Your task to perform on an android device: Is it going to rain tomorrow? Image 0: 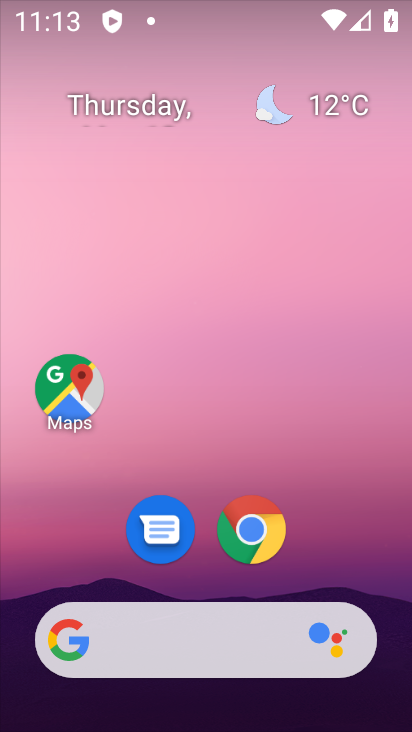
Step 0: click (238, 520)
Your task to perform on an android device: Is it going to rain tomorrow? Image 1: 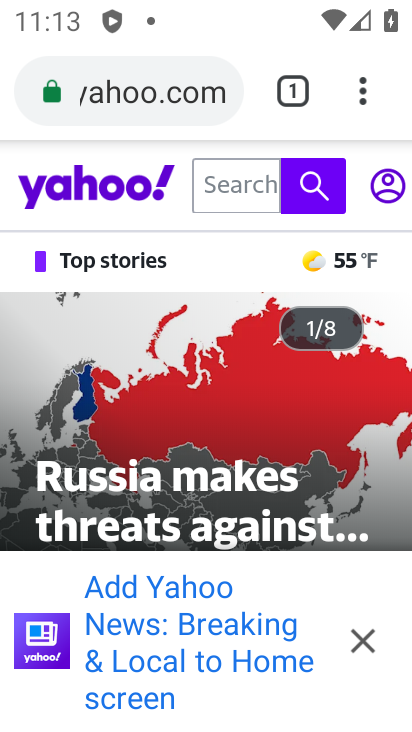
Step 1: click (338, 89)
Your task to perform on an android device: Is it going to rain tomorrow? Image 2: 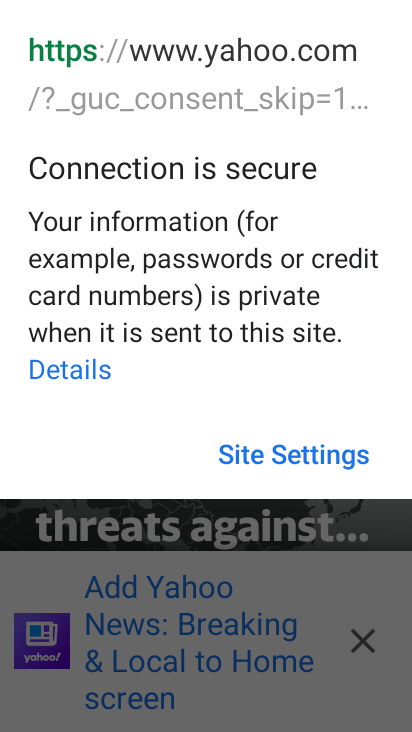
Step 2: press back button
Your task to perform on an android device: Is it going to rain tomorrow? Image 3: 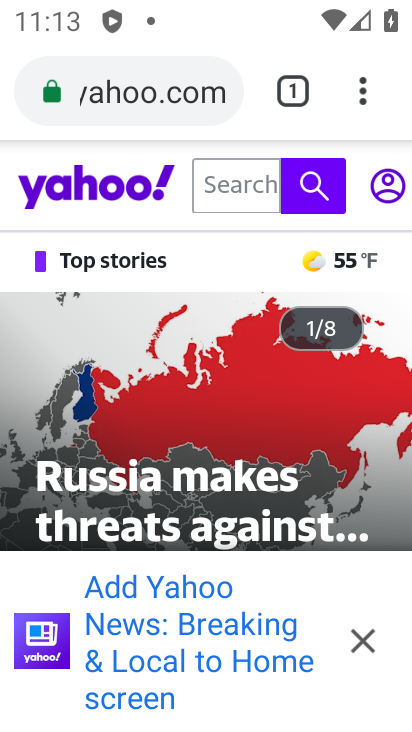
Step 3: click (343, 88)
Your task to perform on an android device: Is it going to rain tomorrow? Image 4: 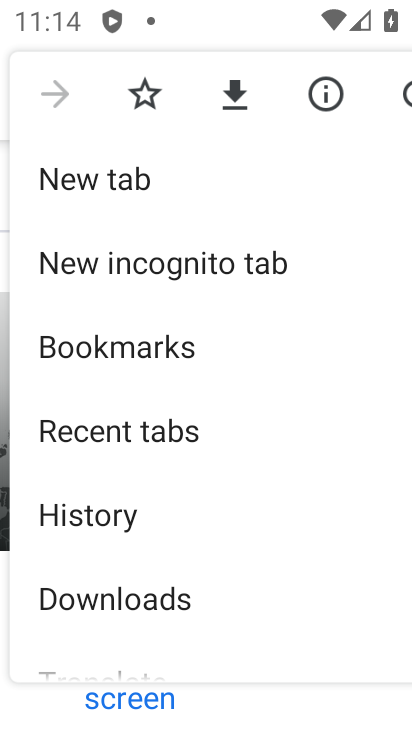
Step 4: click (97, 175)
Your task to perform on an android device: Is it going to rain tomorrow? Image 5: 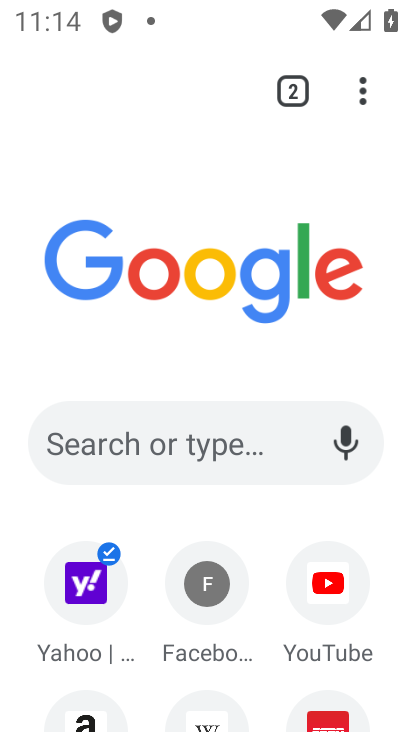
Step 5: click (137, 443)
Your task to perform on an android device: Is it going to rain tomorrow? Image 6: 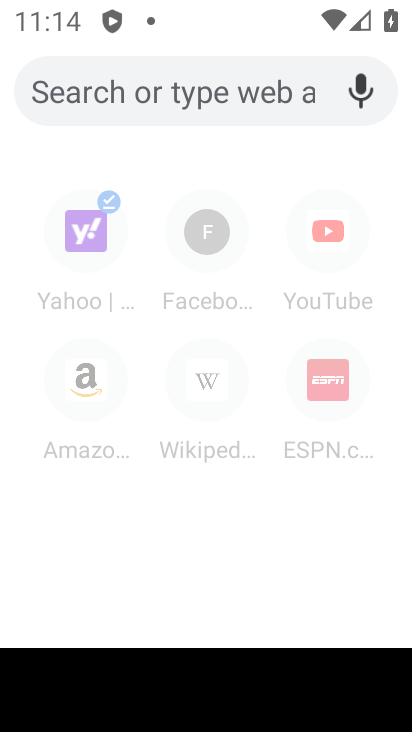
Step 6: type "Is it going to rain tomorrow?"
Your task to perform on an android device: Is it going to rain tomorrow? Image 7: 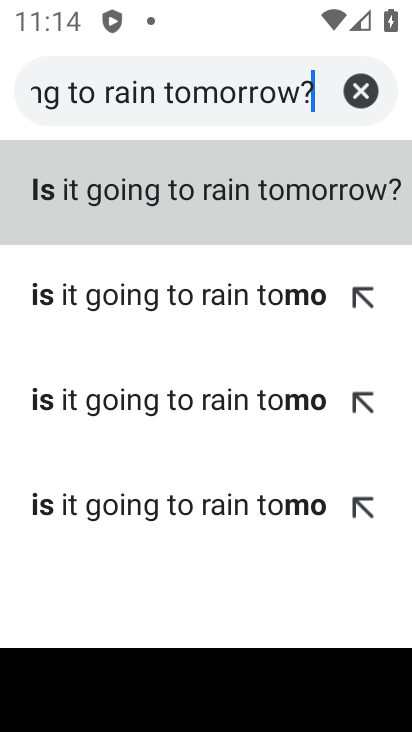
Step 7: click (298, 189)
Your task to perform on an android device: Is it going to rain tomorrow? Image 8: 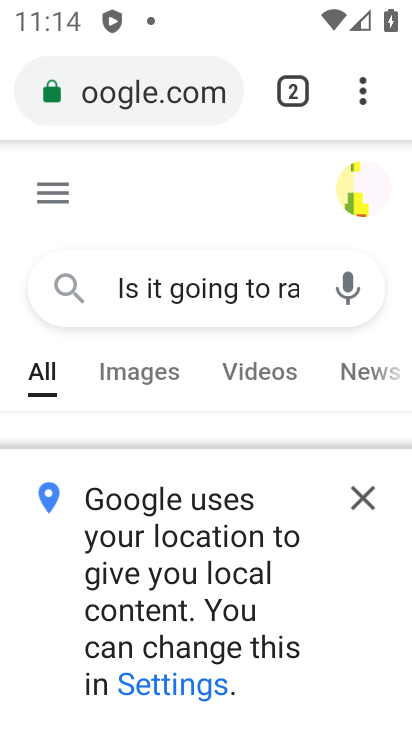
Step 8: click (367, 483)
Your task to perform on an android device: Is it going to rain tomorrow? Image 9: 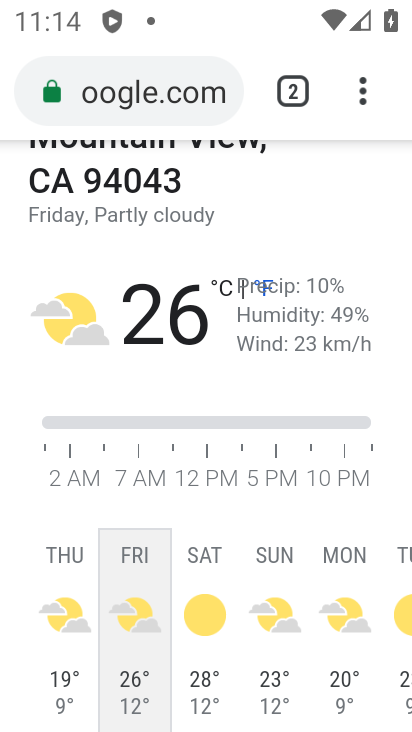
Step 9: task complete